Your task to perform on an android device: toggle location history Image 0: 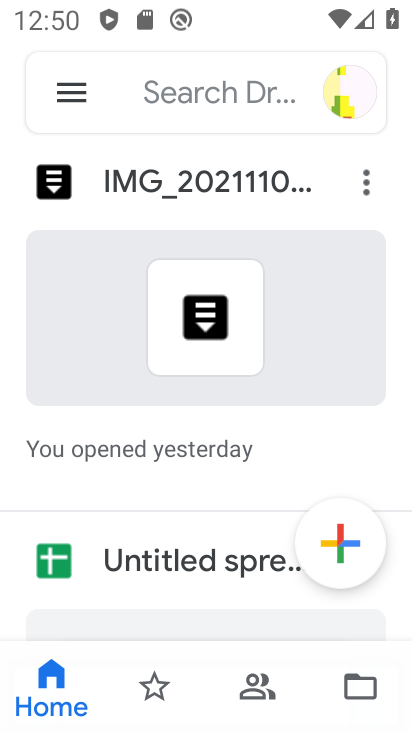
Step 0: press home button
Your task to perform on an android device: toggle location history Image 1: 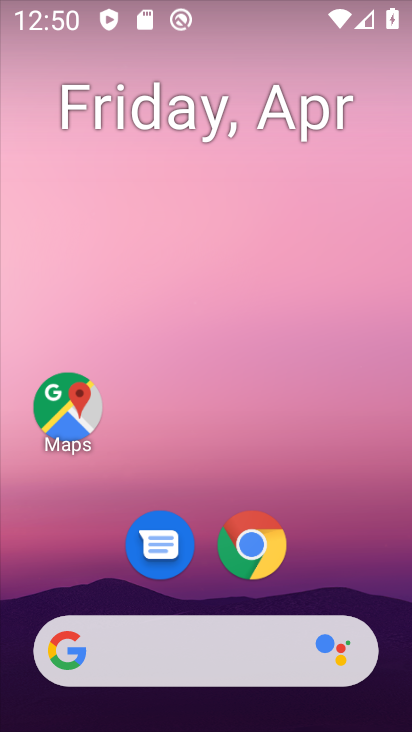
Step 1: drag from (278, 367) to (265, 34)
Your task to perform on an android device: toggle location history Image 2: 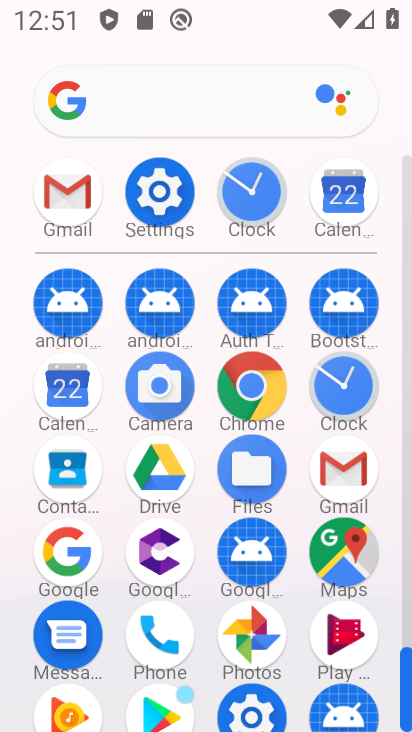
Step 2: click (155, 192)
Your task to perform on an android device: toggle location history Image 3: 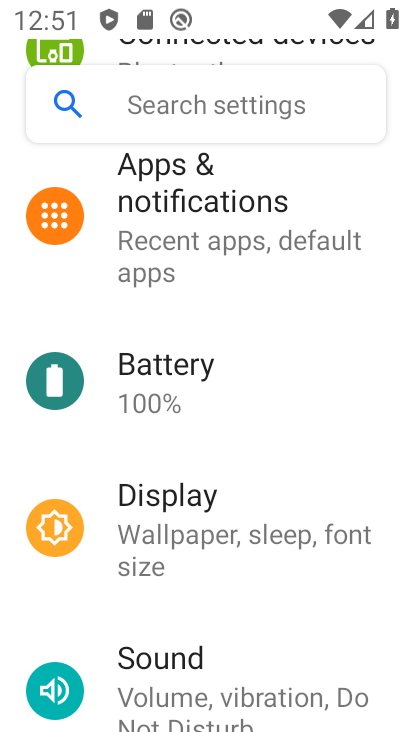
Step 3: drag from (244, 632) to (241, 216)
Your task to perform on an android device: toggle location history Image 4: 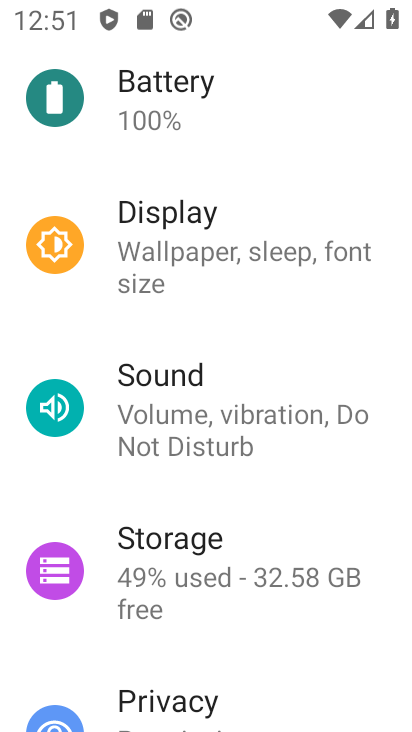
Step 4: drag from (300, 654) to (296, 228)
Your task to perform on an android device: toggle location history Image 5: 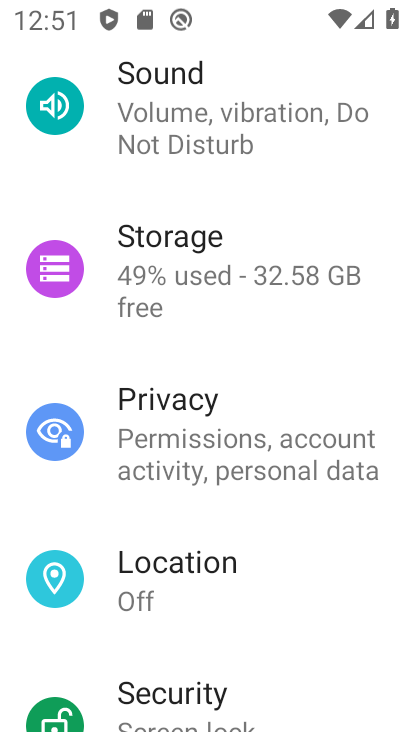
Step 5: click (185, 585)
Your task to perform on an android device: toggle location history Image 6: 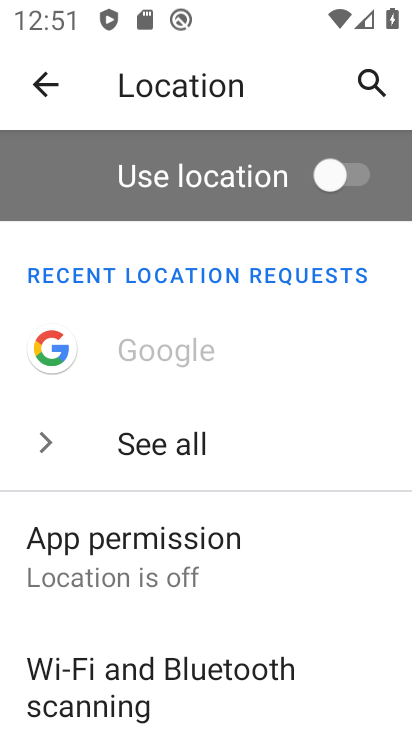
Step 6: click (357, 170)
Your task to perform on an android device: toggle location history Image 7: 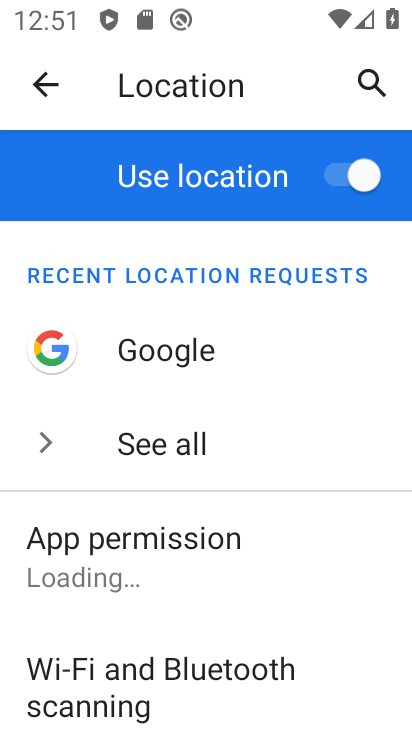
Step 7: task complete